Your task to perform on an android device: Go to Google Image 0: 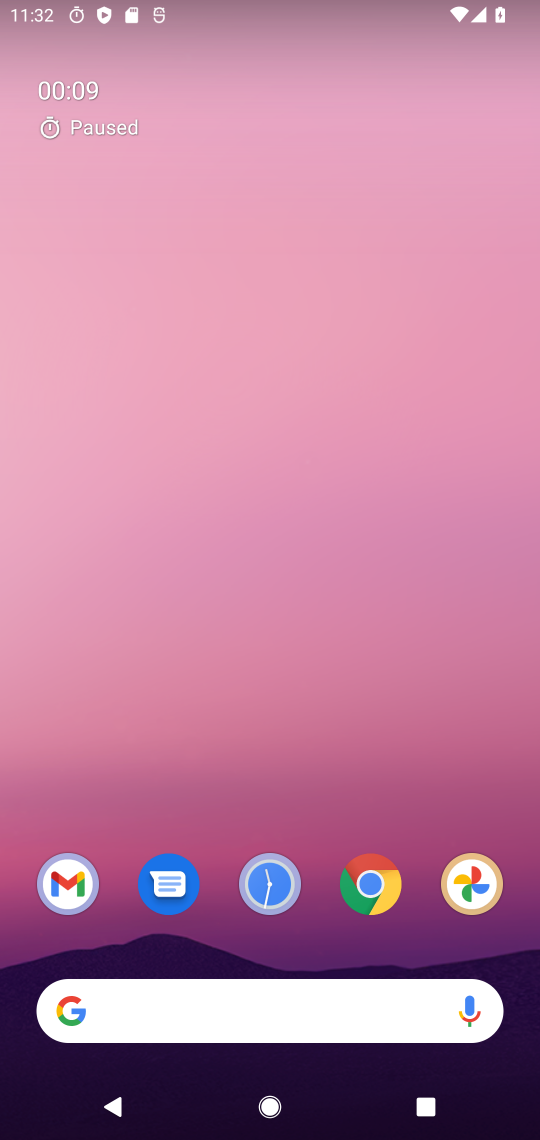
Step 0: click (183, 1022)
Your task to perform on an android device: Go to Google Image 1: 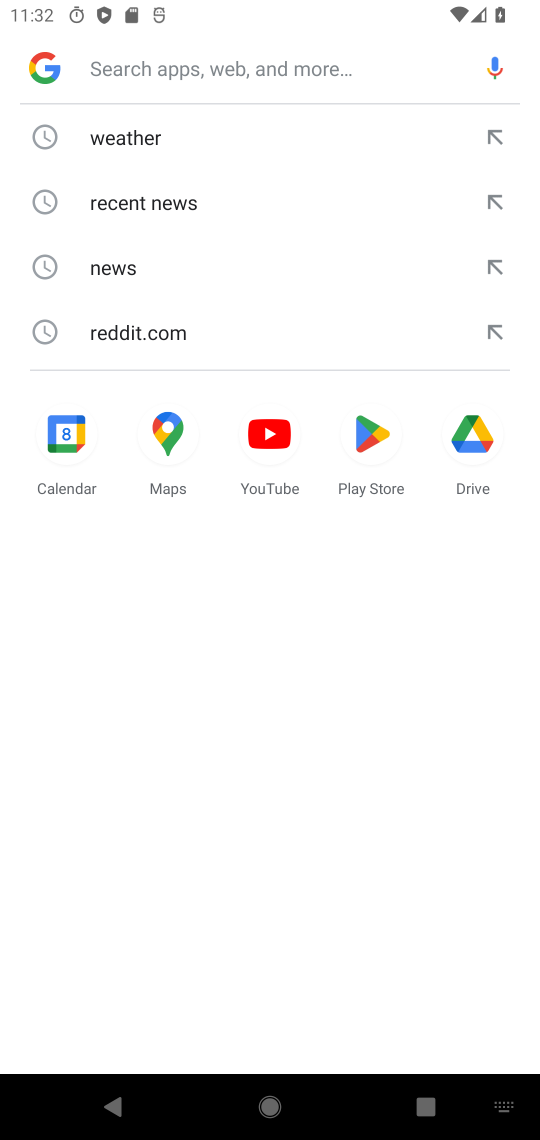
Step 1: task complete